Your task to perform on an android device: turn off sleep mode Image 0: 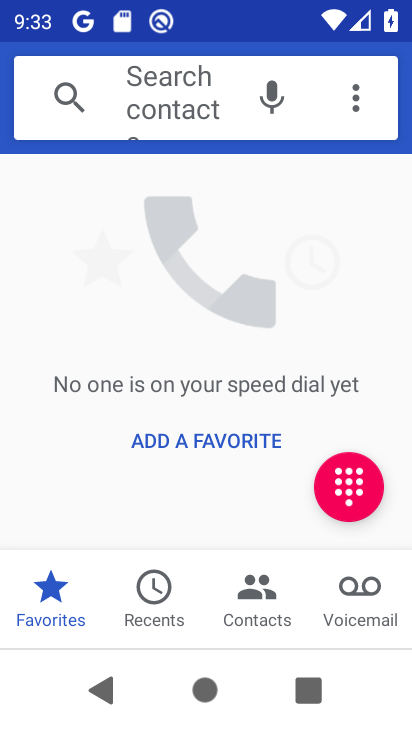
Step 0: press home button
Your task to perform on an android device: turn off sleep mode Image 1: 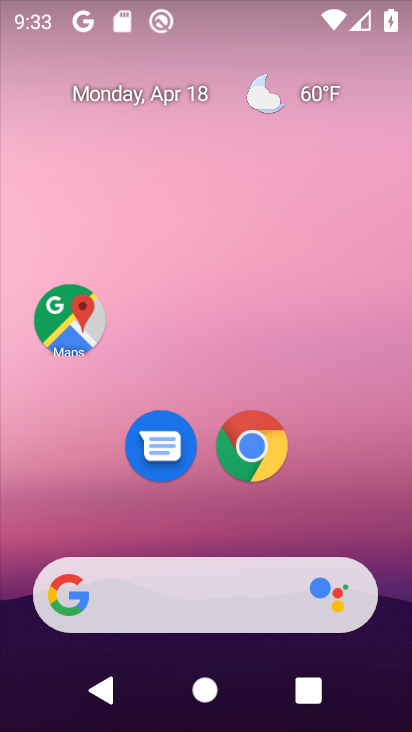
Step 1: drag from (361, 509) to (355, 110)
Your task to perform on an android device: turn off sleep mode Image 2: 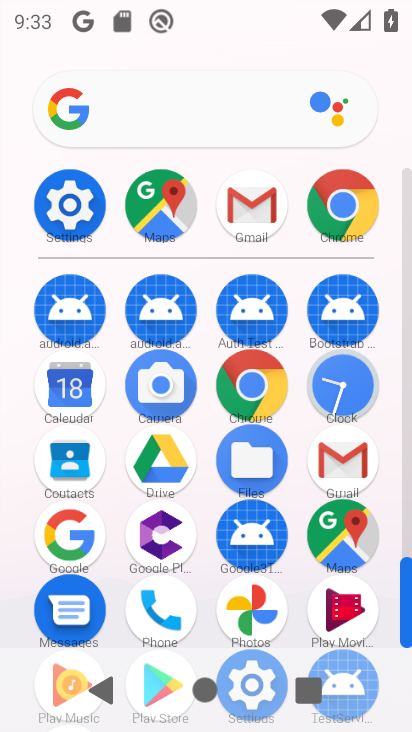
Step 2: click (74, 196)
Your task to perform on an android device: turn off sleep mode Image 3: 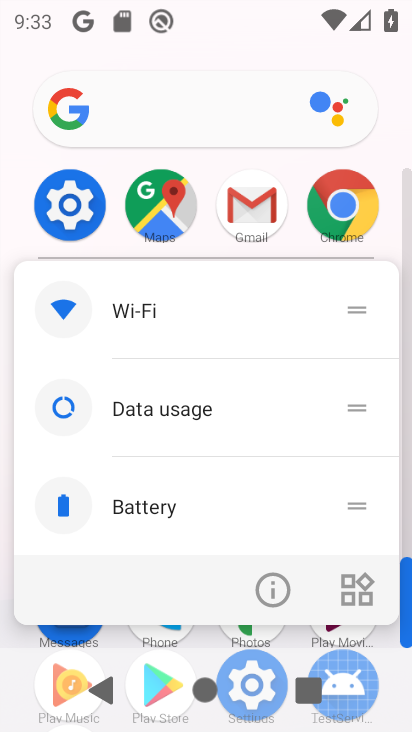
Step 3: click (80, 206)
Your task to perform on an android device: turn off sleep mode Image 4: 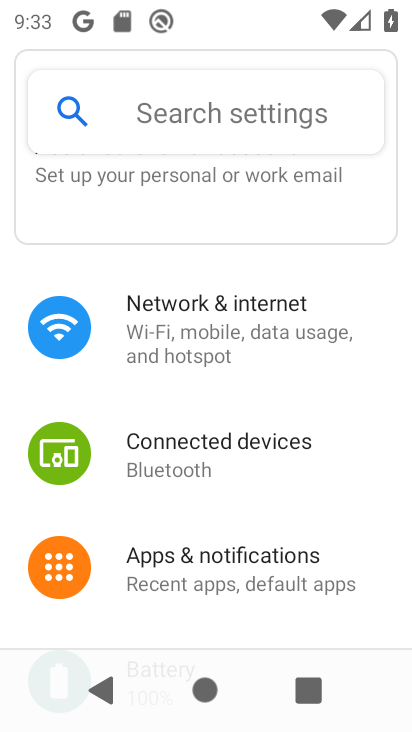
Step 4: drag from (385, 606) to (389, 408)
Your task to perform on an android device: turn off sleep mode Image 5: 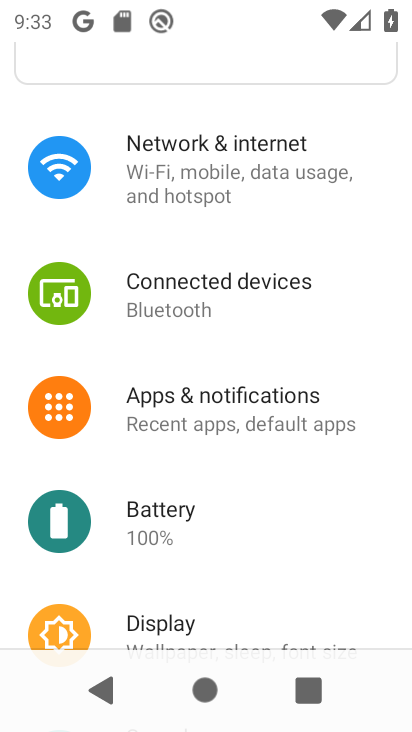
Step 5: drag from (374, 562) to (384, 392)
Your task to perform on an android device: turn off sleep mode Image 6: 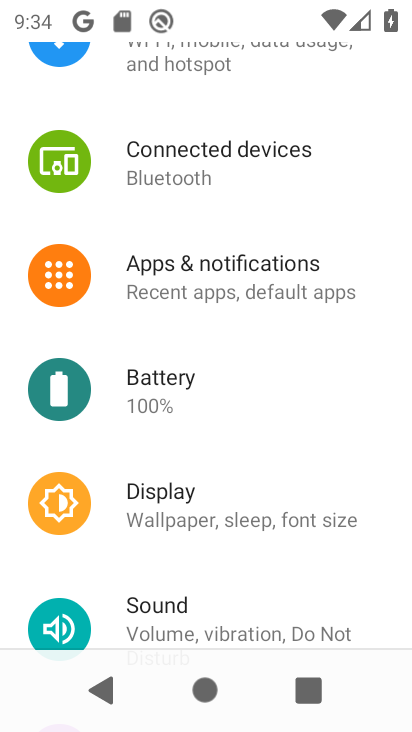
Step 6: click (305, 522)
Your task to perform on an android device: turn off sleep mode Image 7: 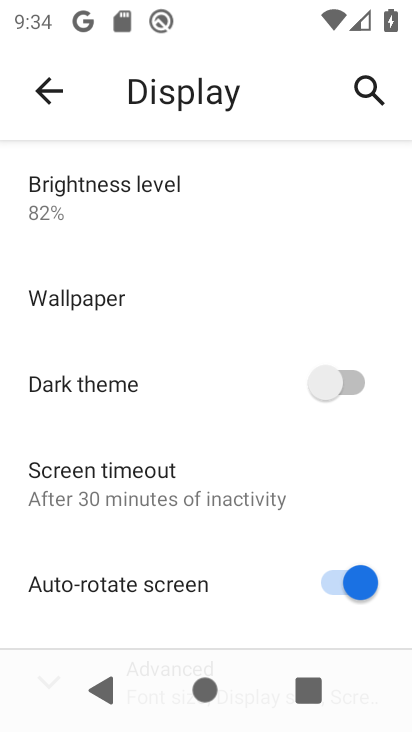
Step 7: drag from (263, 554) to (257, 339)
Your task to perform on an android device: turn off sleep mode Image 8: 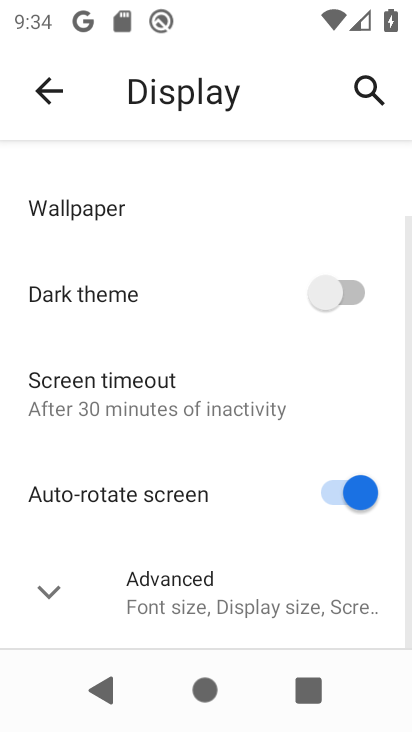
Step 8: click (210, 595)
Your task to perform on an android device: turn off sleep mode Image 9: 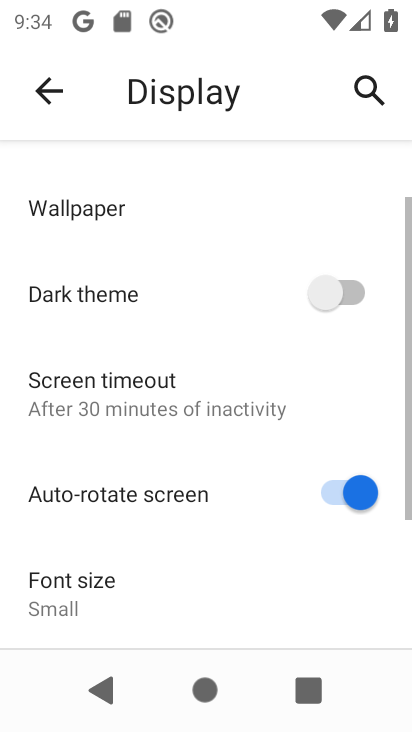
Step 9: task complete